Your task to perform on an android device: turn notification dots on Image 0: 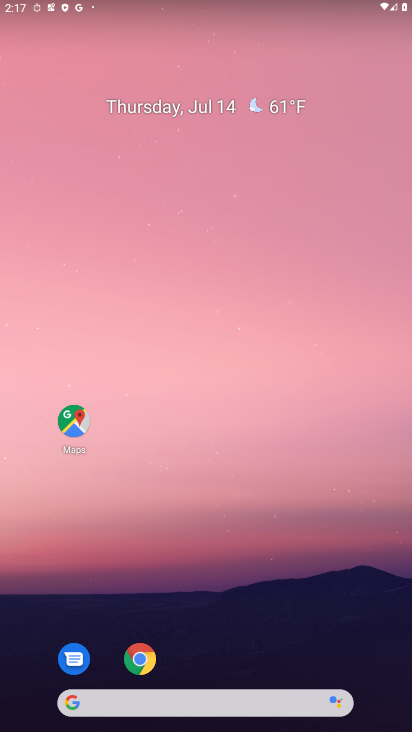
Step 0: drag from (216, 668) to (196, 141)
Your task to perform on an android device: turn notification dots on Image 1: 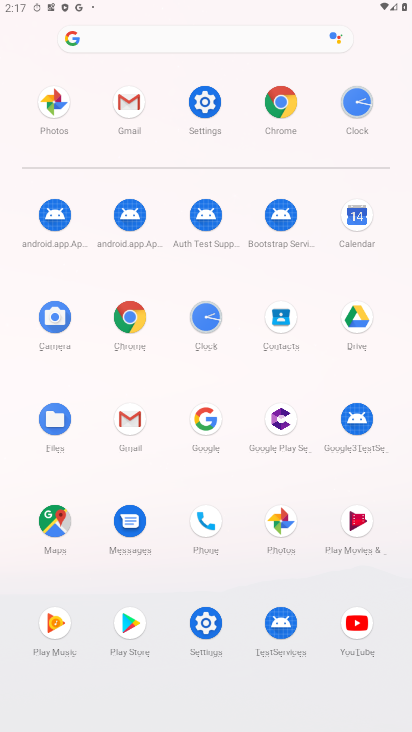
Step 1: click (193, 92)
Your task to perform on an android device: turn notification dots on Image 2: 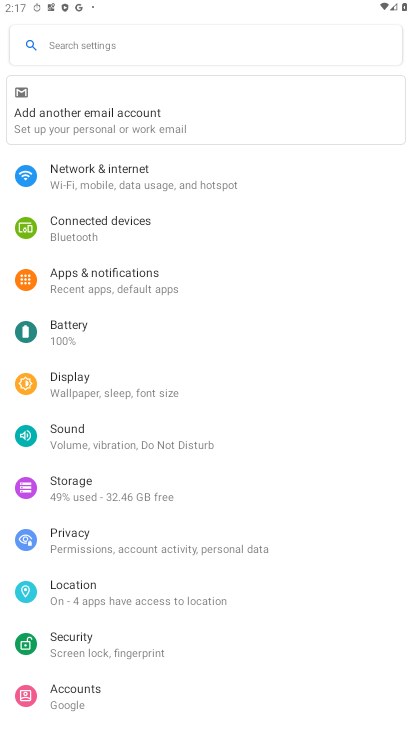
Step 2: click (101, 288)
Your task to perform on an android device: turn notification dots on Image 3: 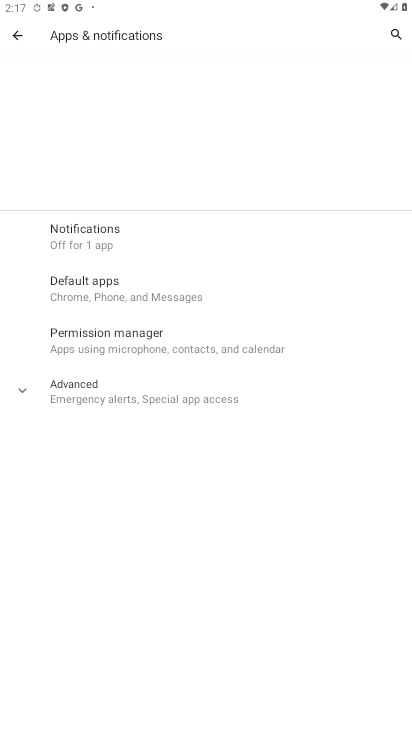
Step 3: click (99, 382)
Your task to perform on an android device: turn notification dots on Image 4: 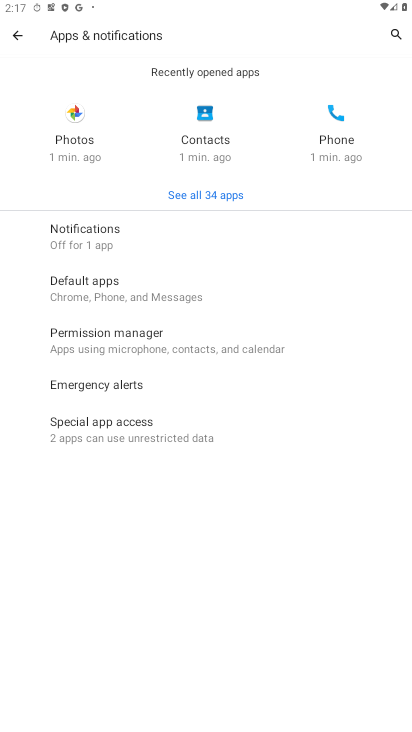
Step 4: click (109, 249)
Your task to perform on an android device: turn notification dots on Image 5: 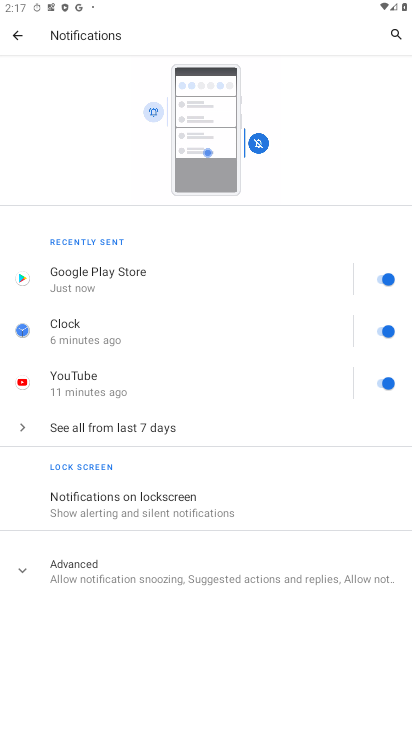
Step 5: click (168, 555)
Your task to perform on an android device: turn notification dots on Image 6: 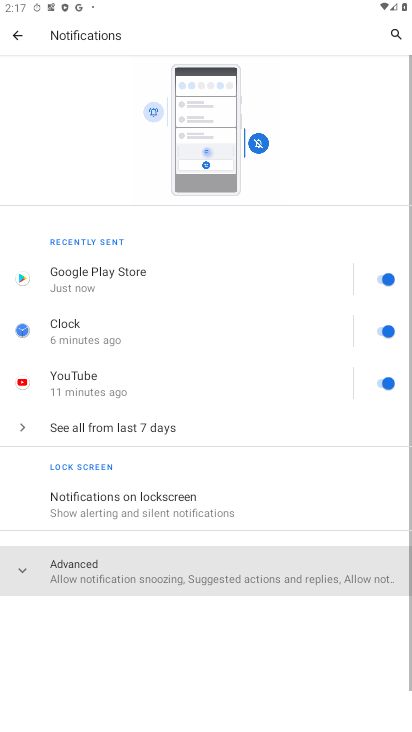
Step 6: drag from (167, 554) to (155, 216)
Your task to perform on an android device: turn notification dots on Image 7: 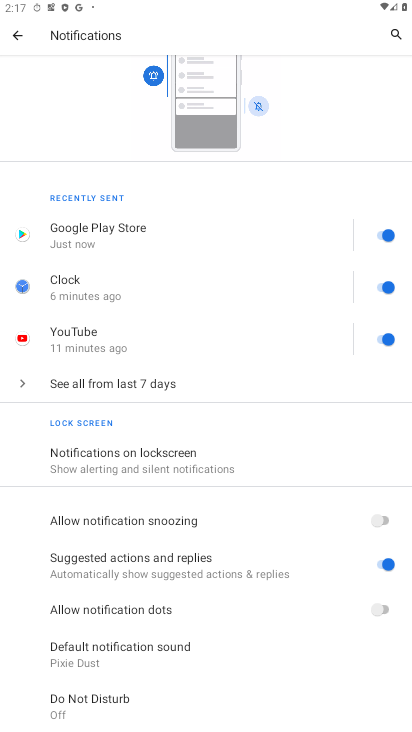
Step 7: click (374, 611)
Your task to perform on an android device: turn notification dots on Image 8: 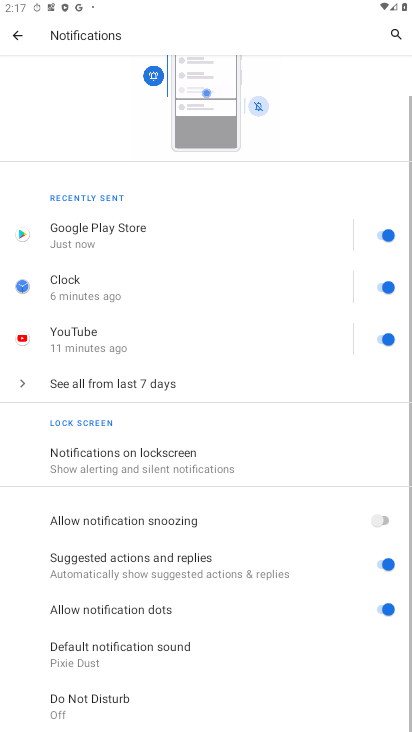
Step 8: task complete